Your task to perform on an android device: turn off smart reply in the gmail app Image 0: 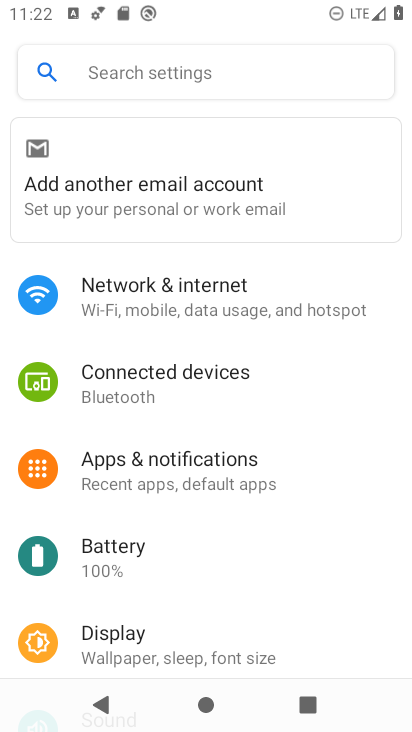
Step 0: press home button
Your task to perform on an android device: turn off smart reply in the gmail app Image 1: 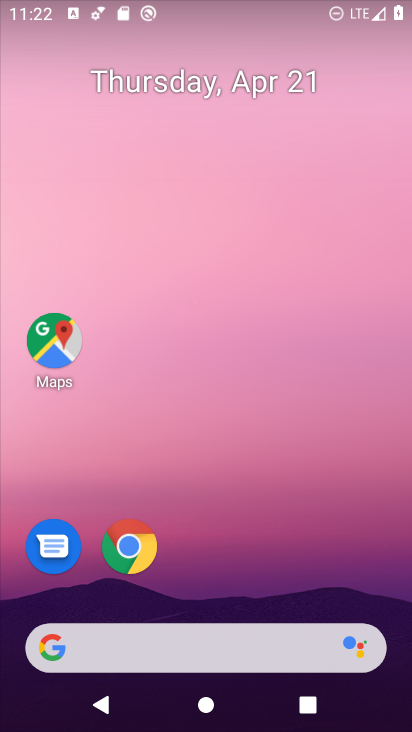
Step 1: drag from (369, 602) to (303, 58)
Your task to perform on an android device: turn off smart reply in the gmail app Image 2: 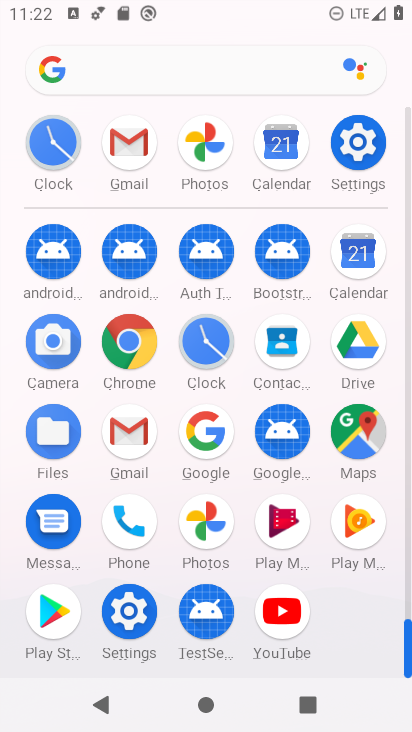
Step 2: click (122, 430)
Your task to perform on an android device: turn off smart reply in the gmail app Image 3: 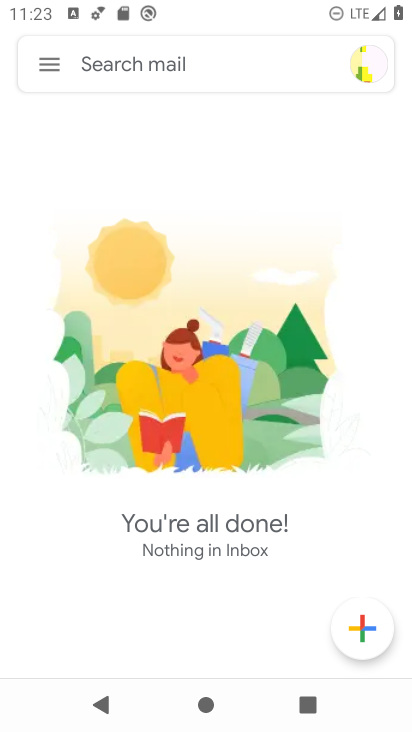
Step 3: click (46, 74)
Your task to perform on an android device: turn off smart reply in the gmail app Image 4: 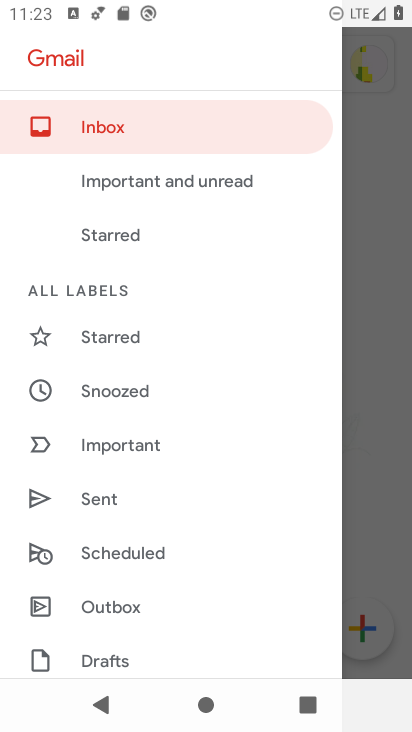
Step 4: drag from (219, 645) to (201, 392)
Your task to perform on an android device: turn off smart reply in the gmail app Image 5: 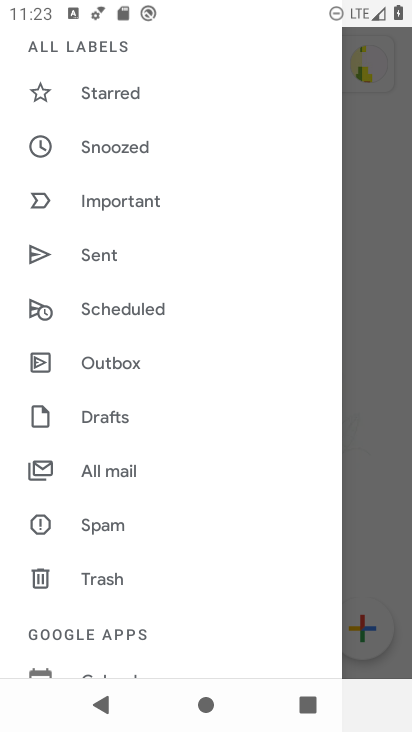
Step 5: drag from (234, 544) to (207, 374)
Your task to perform on an android device: turn off smart reply in the gmail app Image 6: 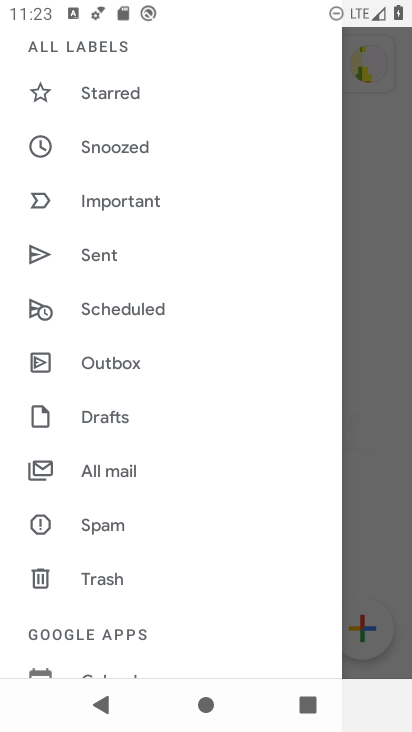
Step 6: drag from (168, 617) to (166, 389)
Your task to perform on an android device: turn off smart reply in the gmail app Image 7: 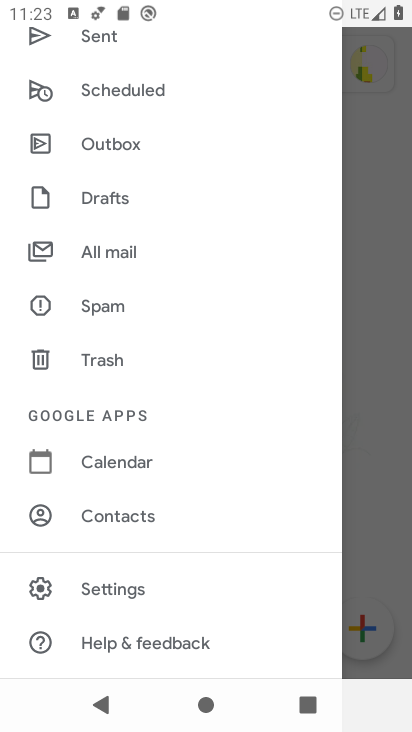
Step 7: click (159, 584)
Your task to perform on an android device: turn off smart reply in the gmail app Image 8: 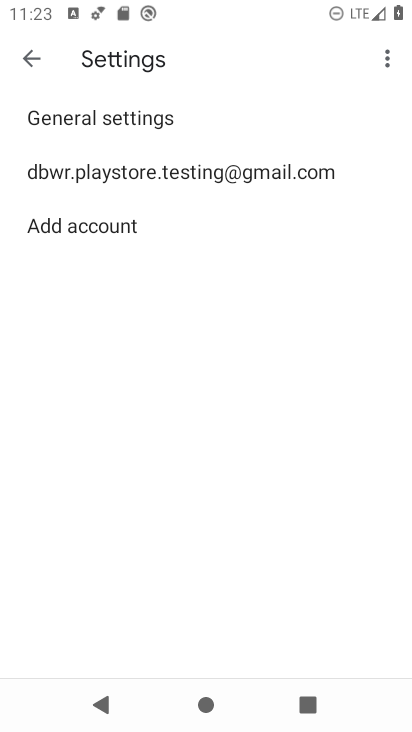
Step 8: click (149, 174)
Your task to perform on an android device: turn off smart reply in the gmail app Image 9: 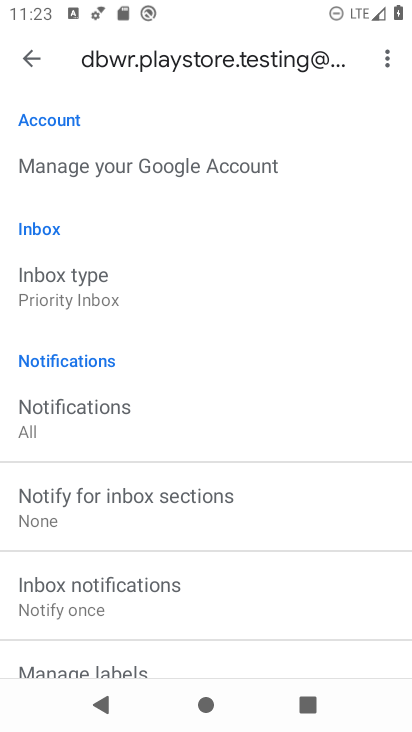
Step 9: drag from (169, 505) to (139, 219)
Your task to perform on an android device: turn off smart reply in the gmail app Image 10: 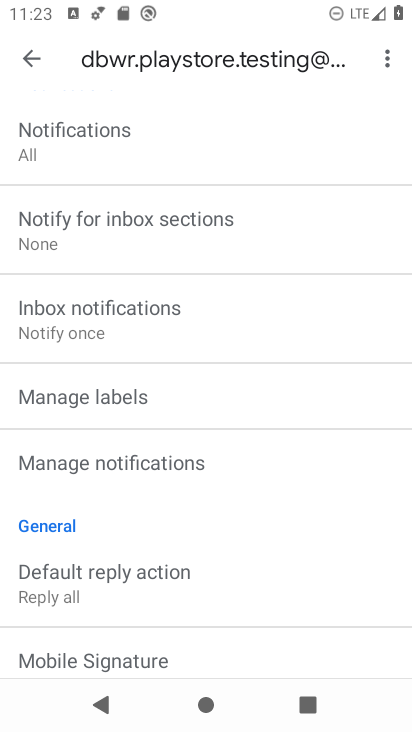
Step 10: drag from (188, 498) to (161, 255)
Your task to perform on an android device: turn off smart reply in the gmail app Image 11: 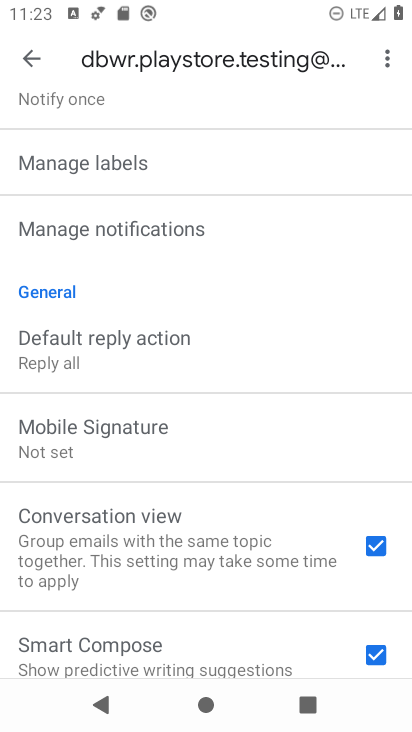
Step 11: drag from (190, 498) to (184, 191)
Your task to perform on an android device: turn off smart reply in the gmail app Image 12: 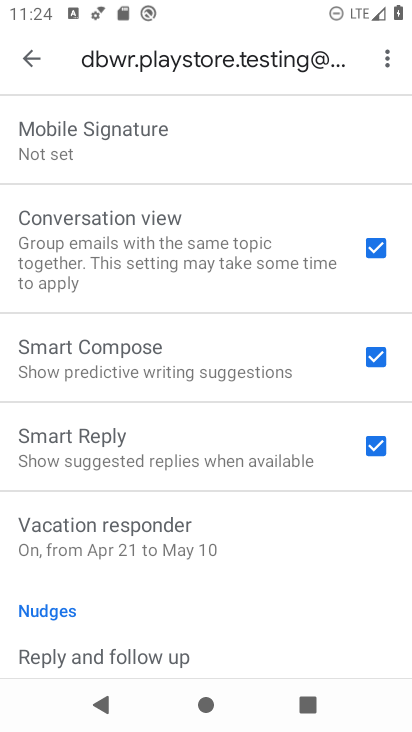
Step 12: click (382, 442)
Your task to perform on an android device: turn off smart reply in the gmail app Image 13: 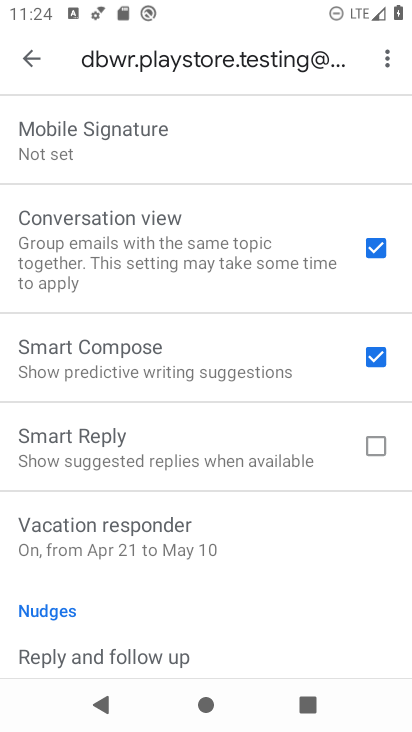
Step 13: task complete